Your task to perform on an android device: Open Youtube and go to the subscriptions tab Image 0: 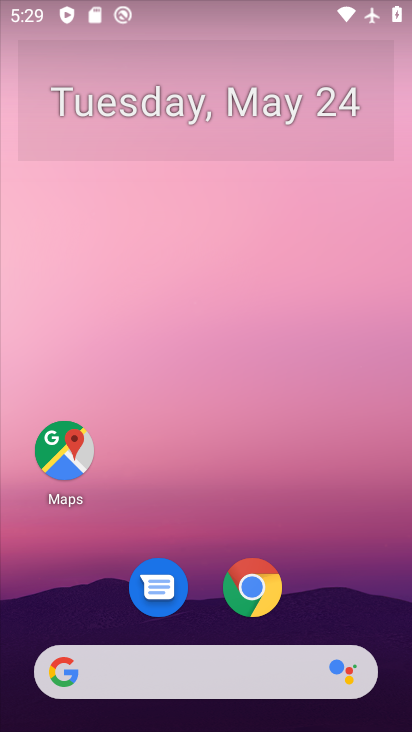
Step 0: drag from (358, 540) to (198, 5)
Your task to perform on an android device: Open Youtube and go to the subscriptions tab Image 1: 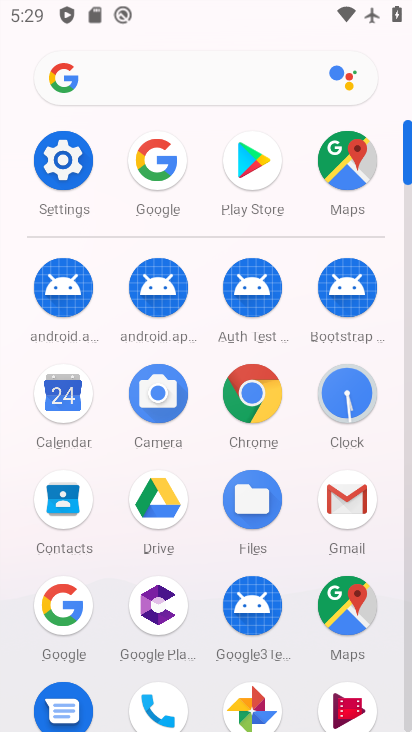
Step 1: drag from (328, 518) to (320, 110)
Your task to perform on an android device: Open Youtube and go to the subscriptions tab Image 2: 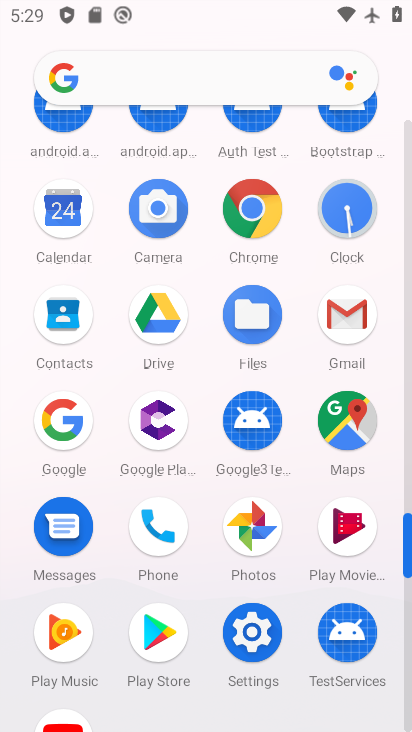
Step 2: click (71, 714)
Your task to perform on an android device: Open Youtube and go to the subscriptions tab Image 3: 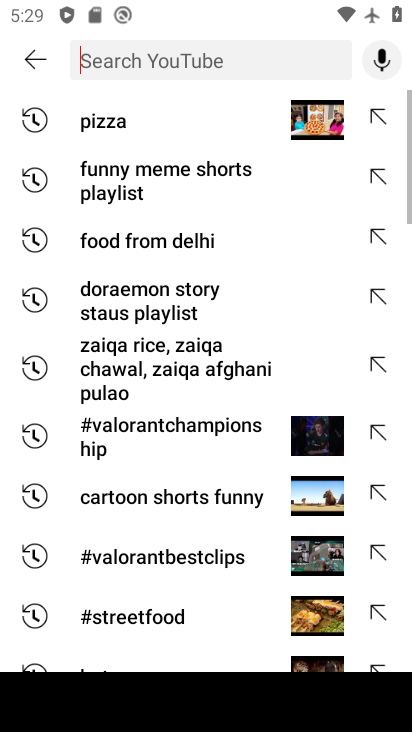
Step 3: click (31, 53)
Your task to perform on an android device: Open Youtube and go to the subscriptions tab Image 4: 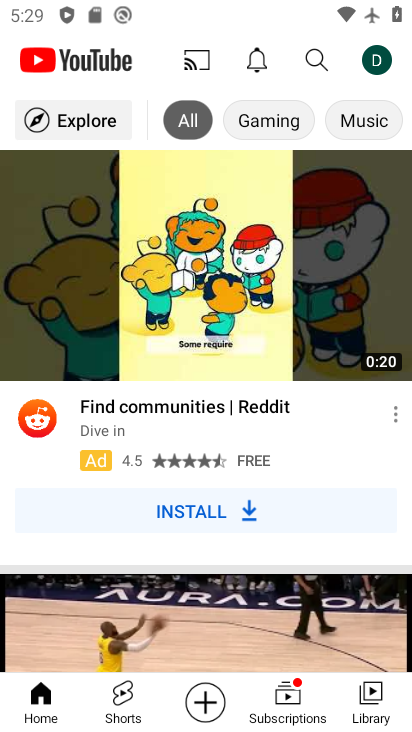
Step 4: click (287, 714)
Your task to perform on an android device: Open Youtube and go to the subscriptions tab Image 5: 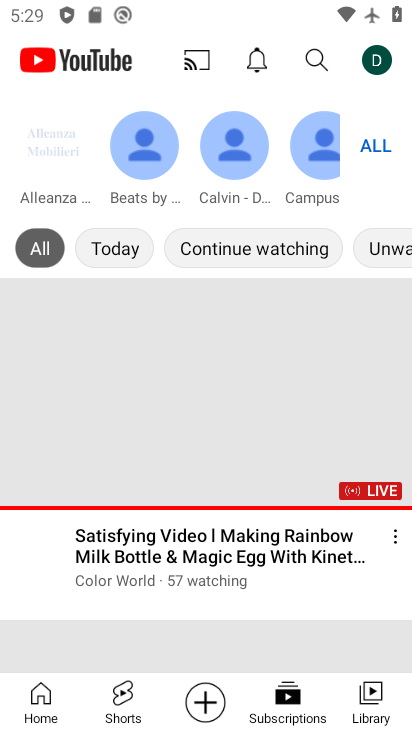
Step 5: task complete